Your task to perform on an android device: Go to Yahoo.com Image 0: 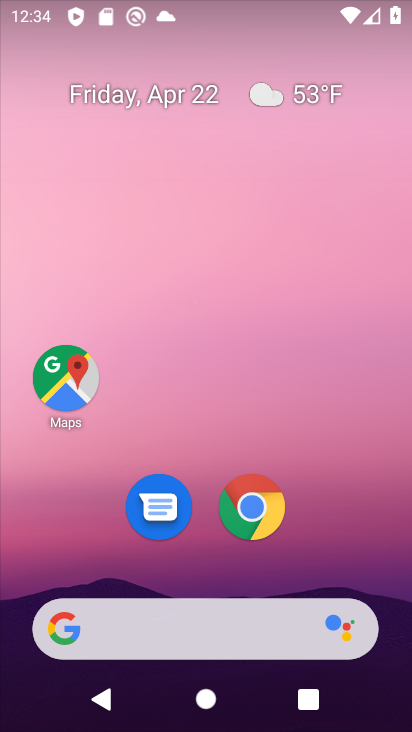
Step 0: click (242, 493)
Your task to perform on an android device: Go to Yahoo.com Image 1: 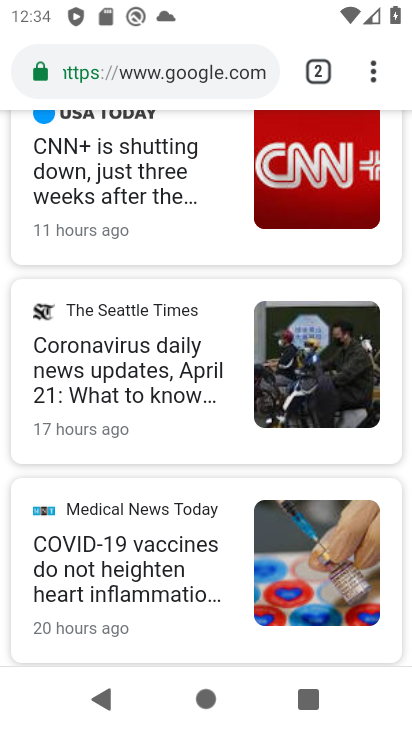
Step 1: click (322, 78)
Your task to perform on an android device: Go to Yahoo.com Image 2: 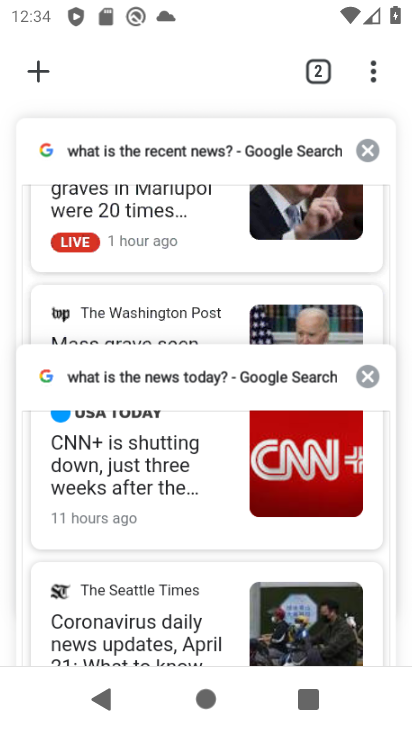
Step 2: click (37, 66)
Your task to perform on an android device: Go to Yahoo.com Image 3: 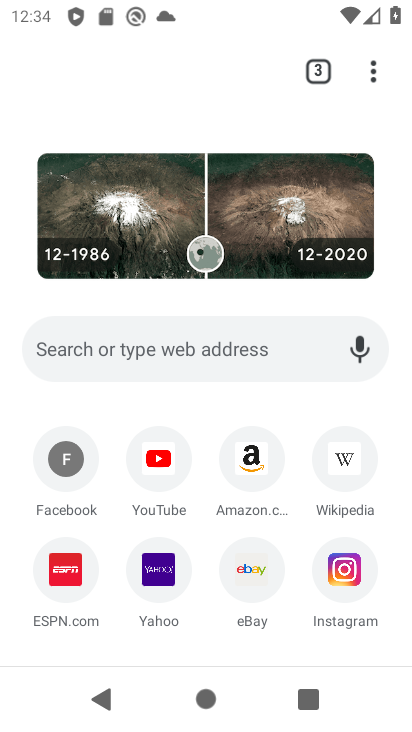
Step 3: click (147, 541)
Your task to perform on an android device: Go to Yahoo.com Image 4: 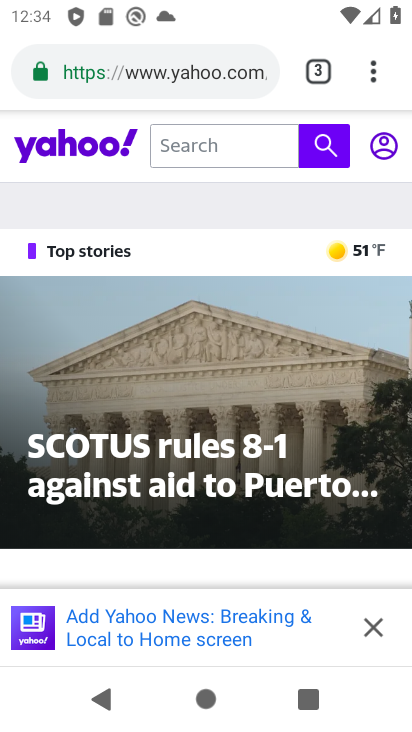
Step 4: task complete